Your task to perform on an android device: View the shopping cart on costco. Image 0: 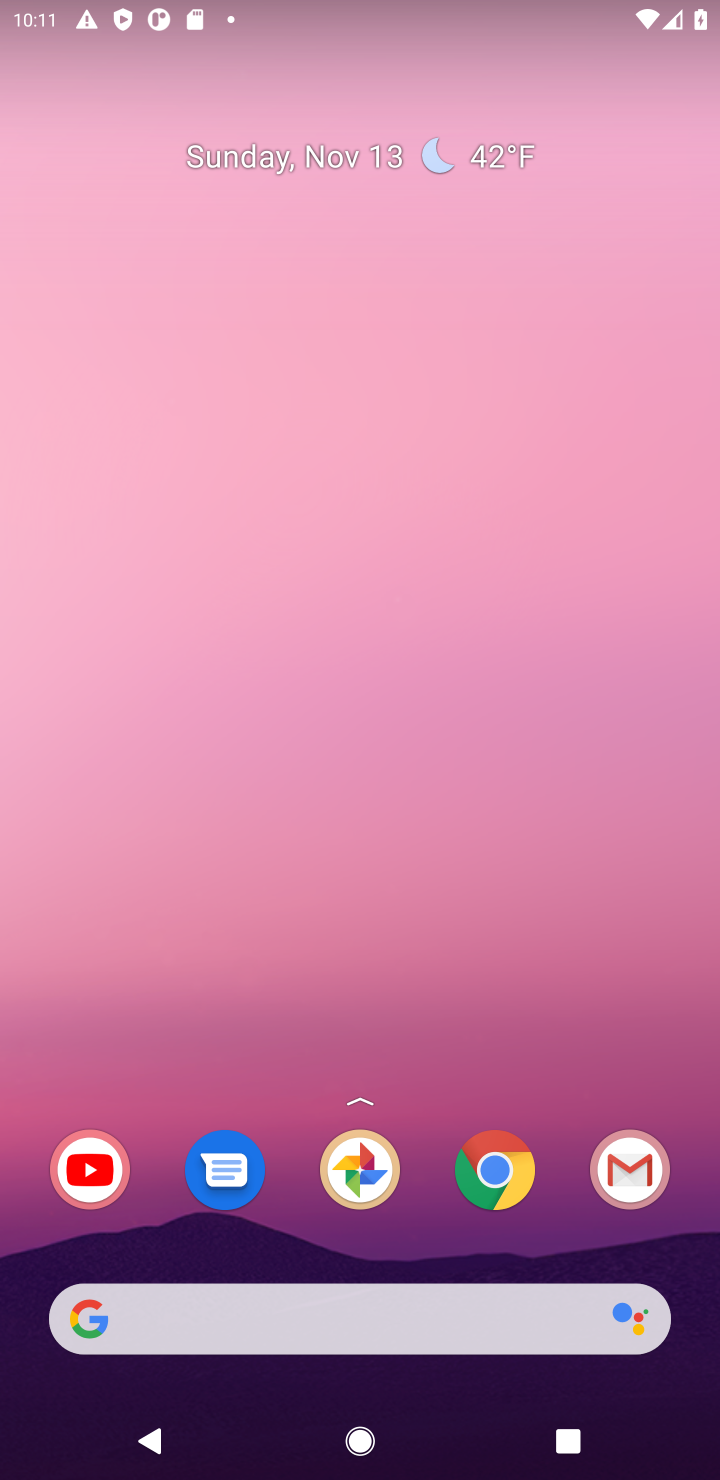
Step 0: drag from (314, 1230) to (395, 173)
Your task to perform on an android device: View the shopping cart on costco. Image 1: 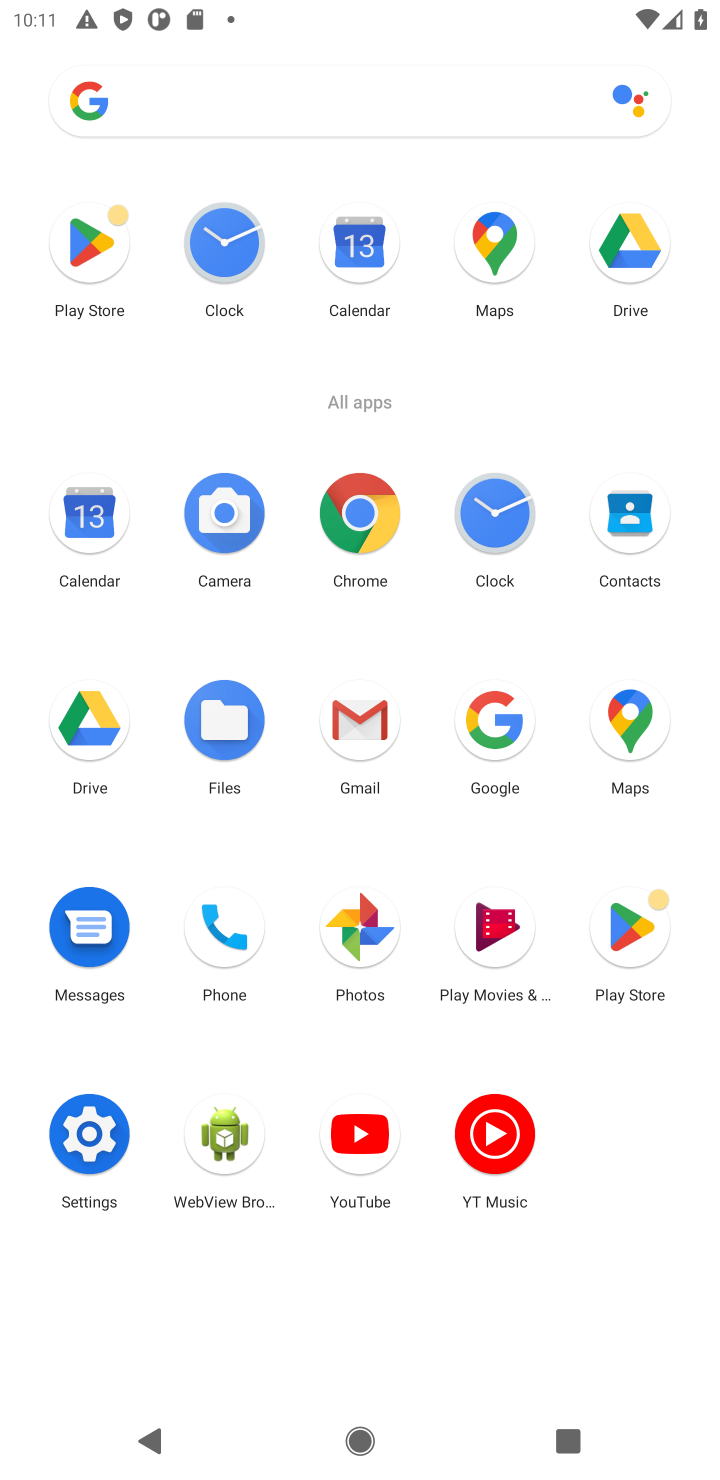
Step 1: click (363, 500)
Your task to perform on an android device: View the shopping cart on costco. Image 2: 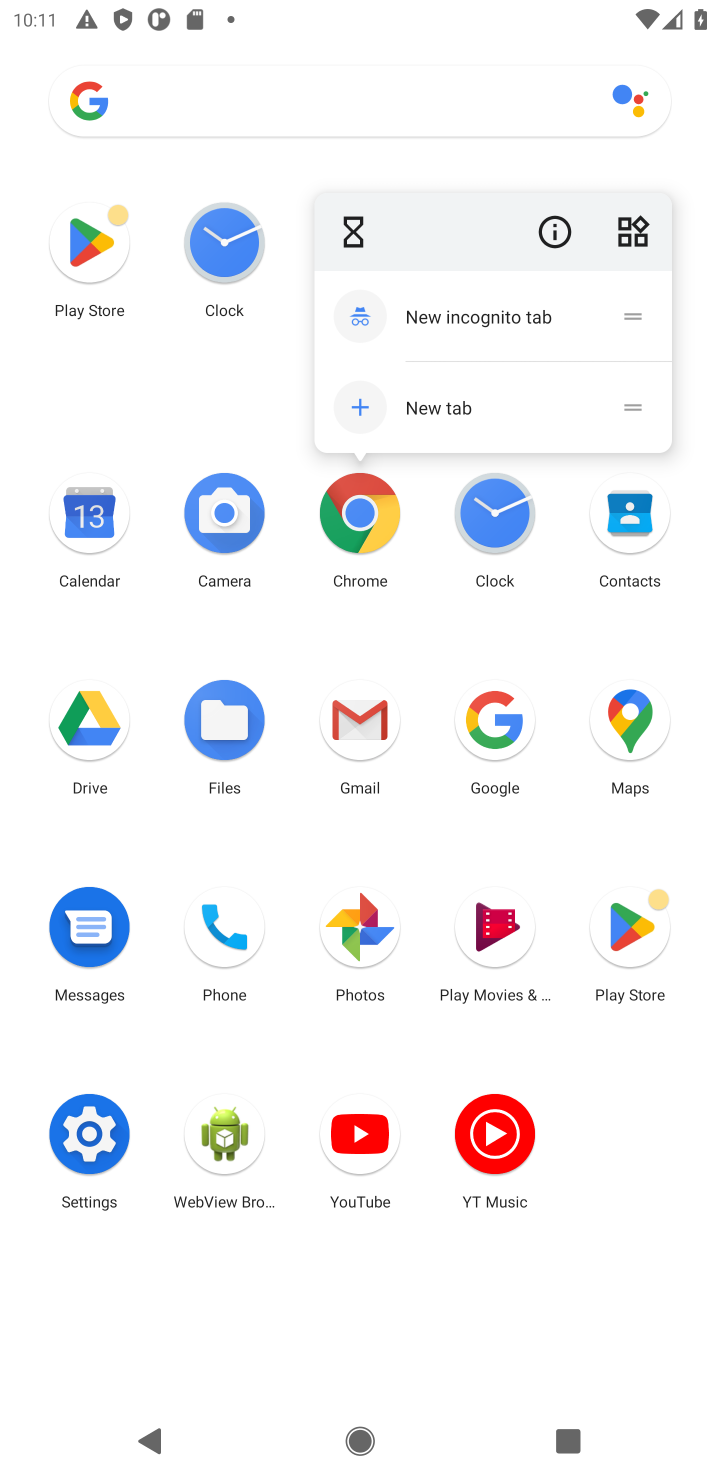
Step 2: click (363, 502)
Your task to perform on an android device: View the shopping cart on costco. Image 3: 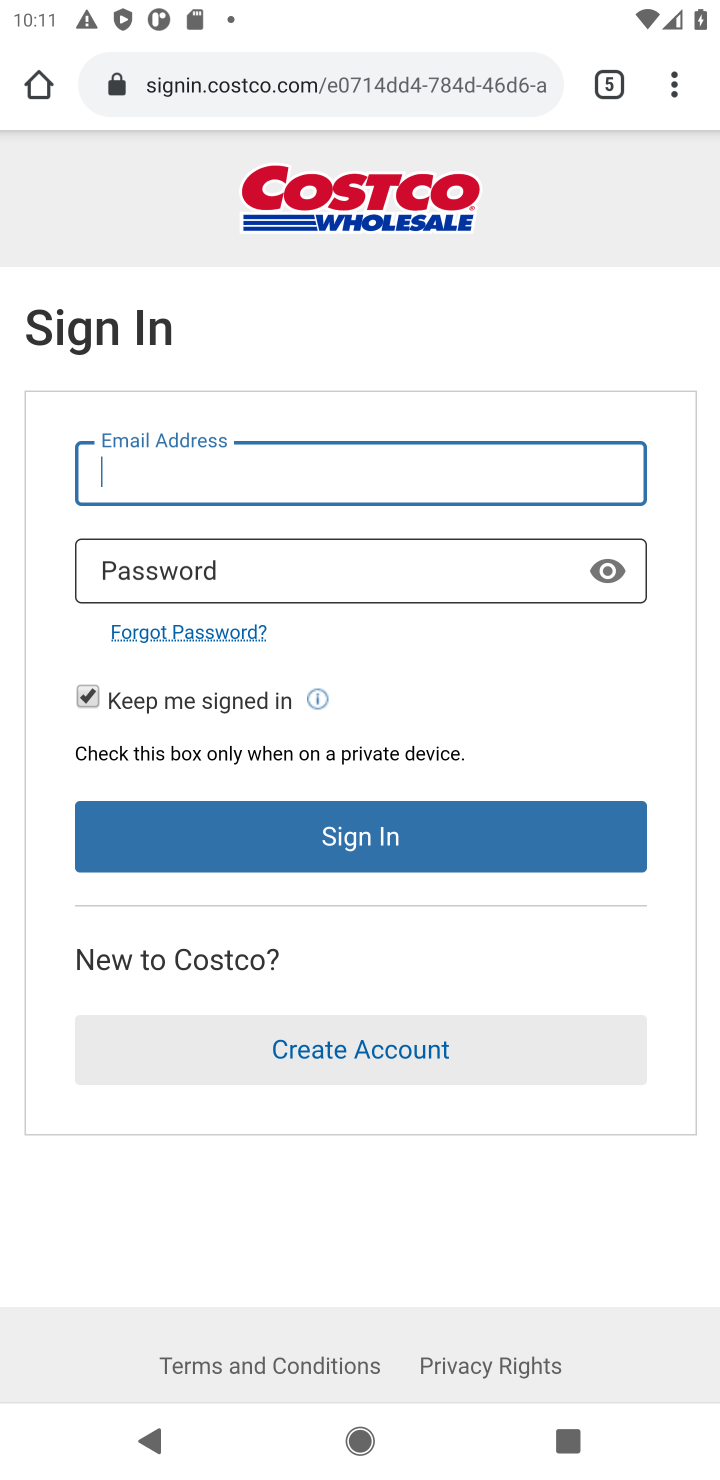
Step 3: press back button
Your task to perform on an android device: View the shopping cart on costco. Image 4: 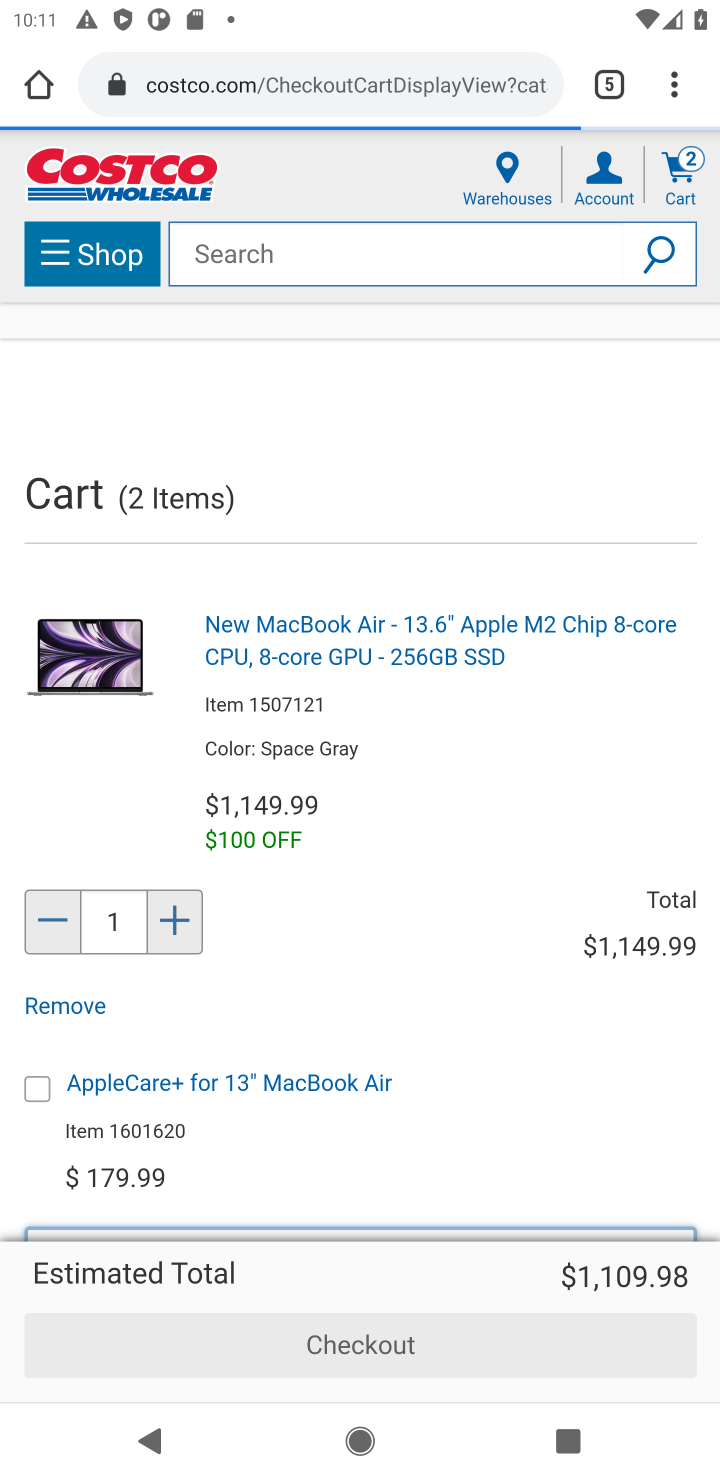
Step 4: click (255, 260)
Your task to perform on an android device: View the shopping cart on costco. Image 5: 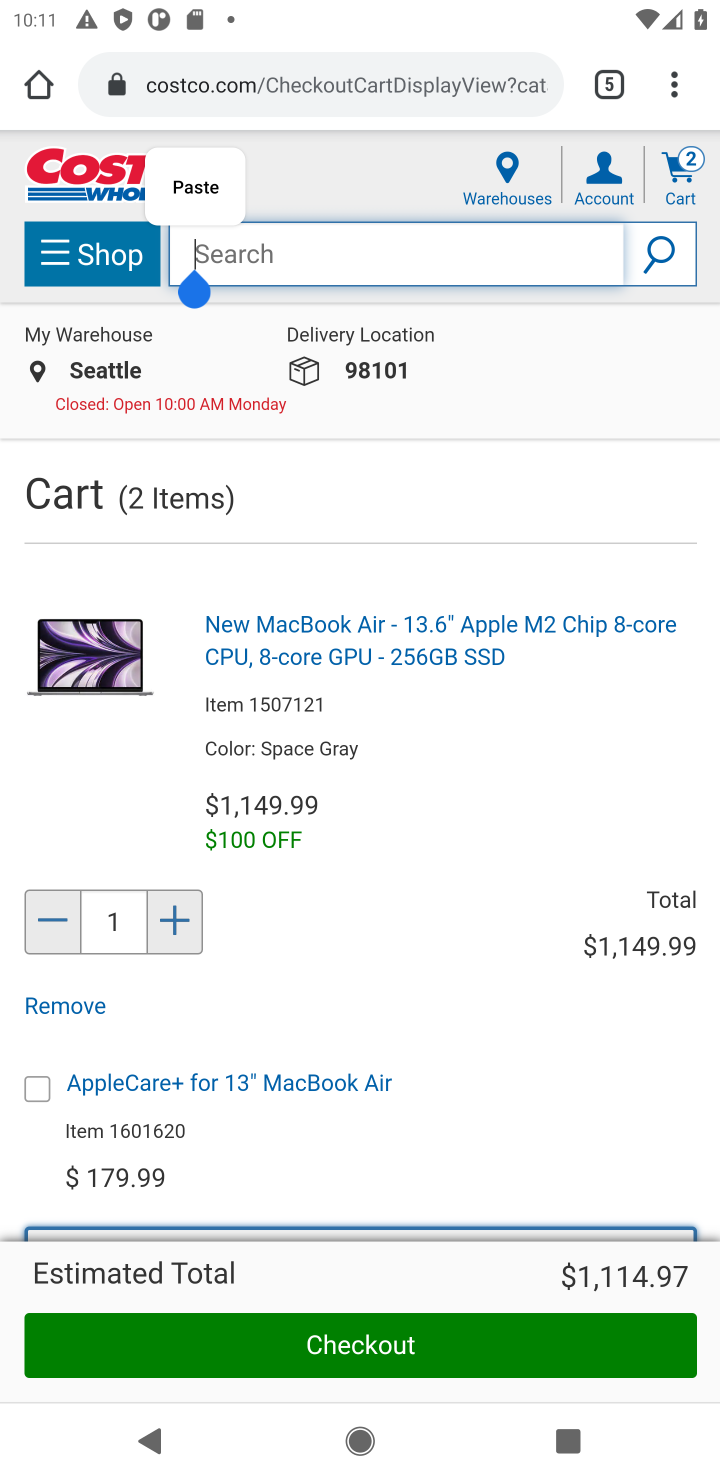
Step 5: click (671, 161)
Your task to perform on an android device: View the shopping cart on costco. Image 6: 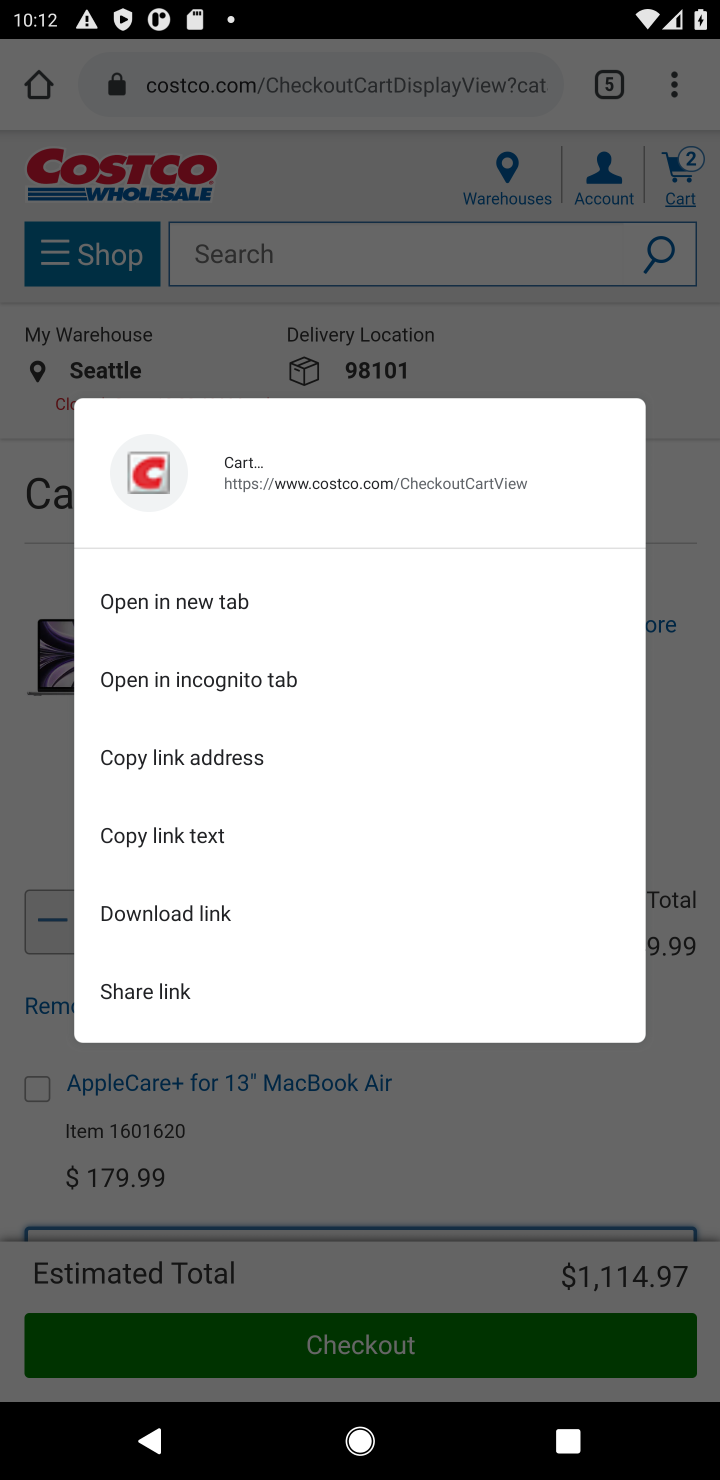
Step 6: click (184, 590)
Your task to perform on an android device: View the shopping cart on costco. Image 7: 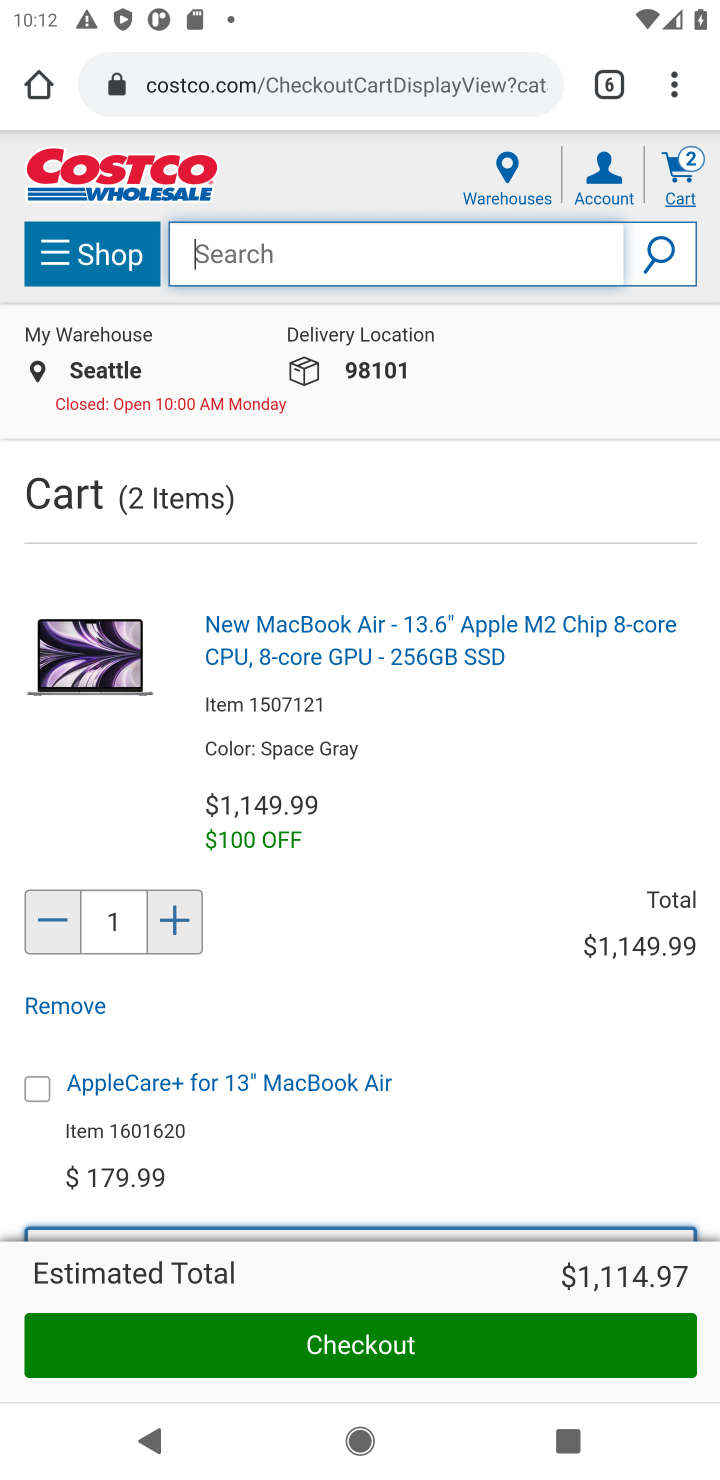
Step 7: task complete